Your task to perform on an android device: Clear the shopping cart on newegg. Image 0: 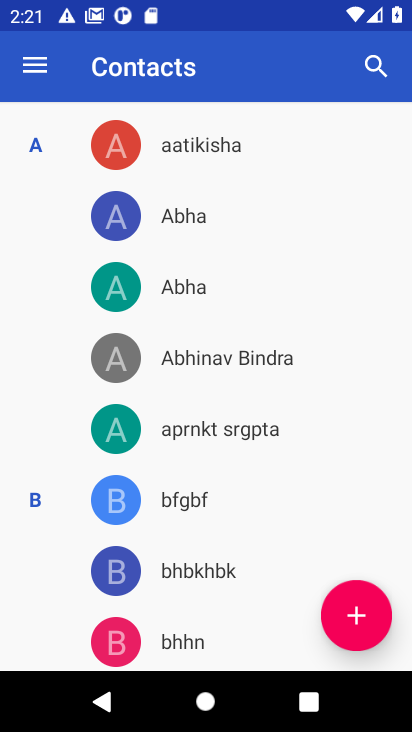
Step 0: press home button
Your task to perform on an android device: Clear the shopping cart on newegg. Image 1: 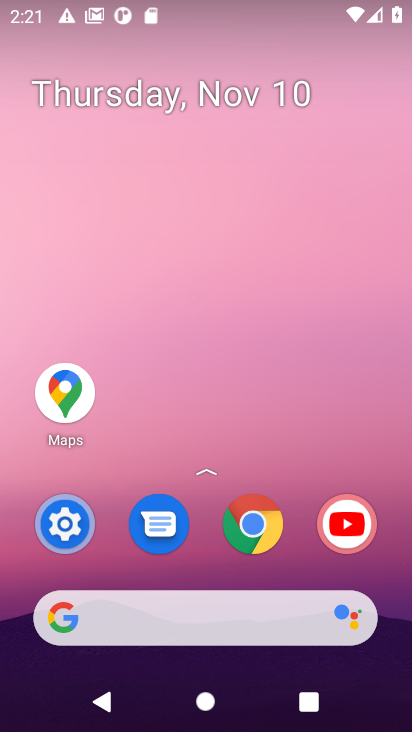
Step 1: click (244, 517)
Your task to perform on an android device: Clear the shopping cart on newegg. Image 2: 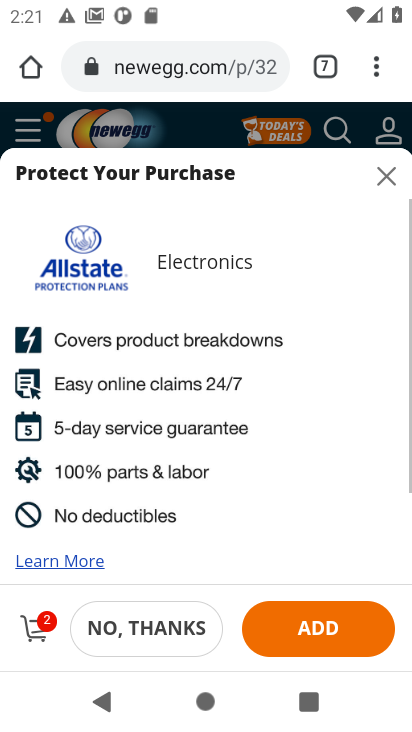
Step 2: click (36, 632)
Your task to perform on an android device: Clear the shopping cart on newegg. Image 3: 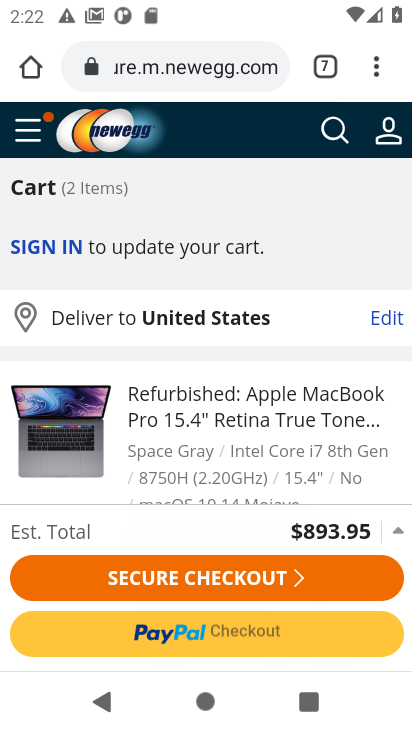
Step 3: drag from (91, 443) to (50, 137)
Your task to perform on an android device: Clear the shopping cart on newegg. Image 4: 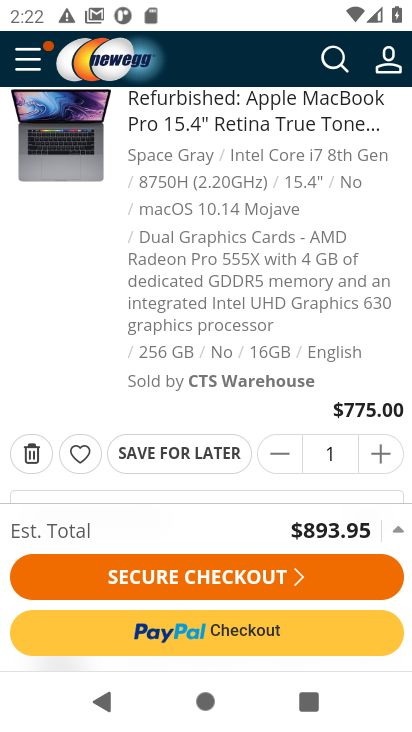
Step 4: click (33, 450)
Your task to perform on an android device: Clear the shopping cart on newegg. Image 5: 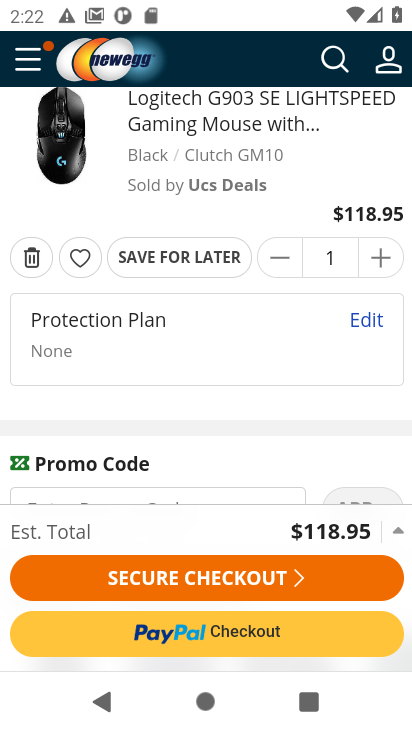
Step 5: click (30, 263)
Your task to perform on an android device: Clear the shopping cart on newegg. Image 6: 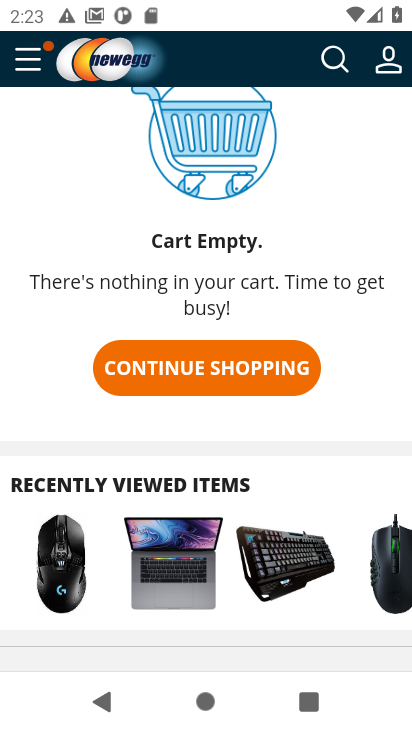
Step 6: task complete